Your task to perform on an android device: install app "Chime – Mobile Banking" Image 0: 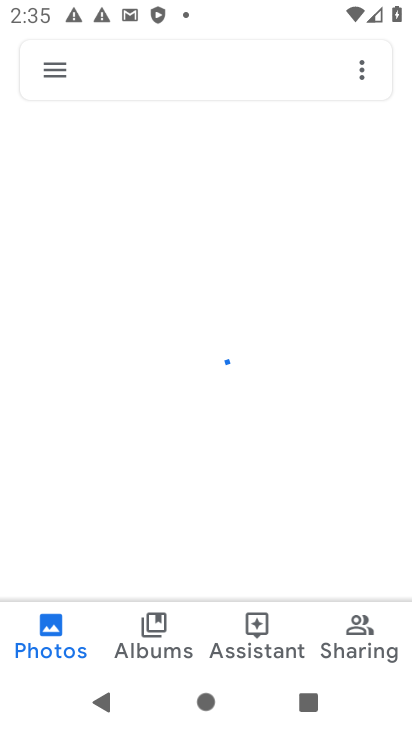
Step 0: press home button
Your task to perform on an android device: install app "Chime – Mobile Banking" Image 1: 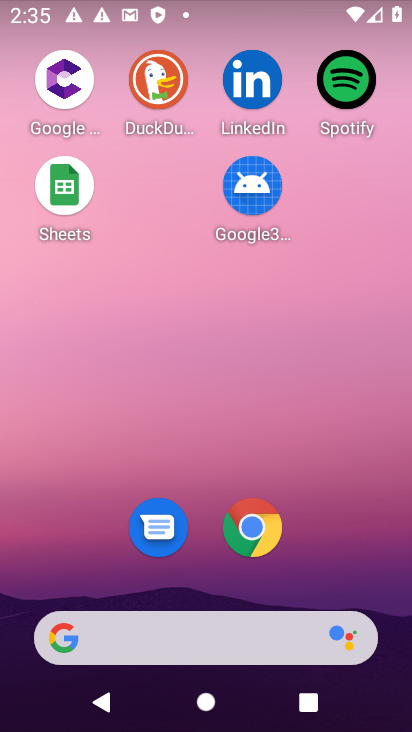
Step 1: drag from (239, 632) to (212, 43)
Your task to perform on an android device: install app "Chime – Mobile Banking" Image 2: 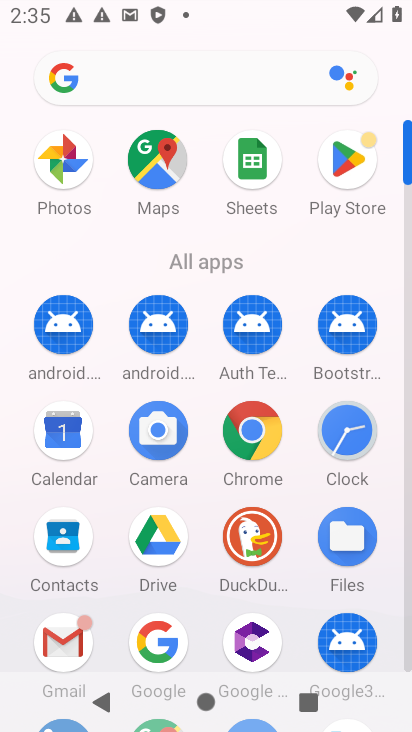
Step 2: click (359, 167)
Your task to perform on an android device: install app "Chime – Mobile Banking" Image 3: 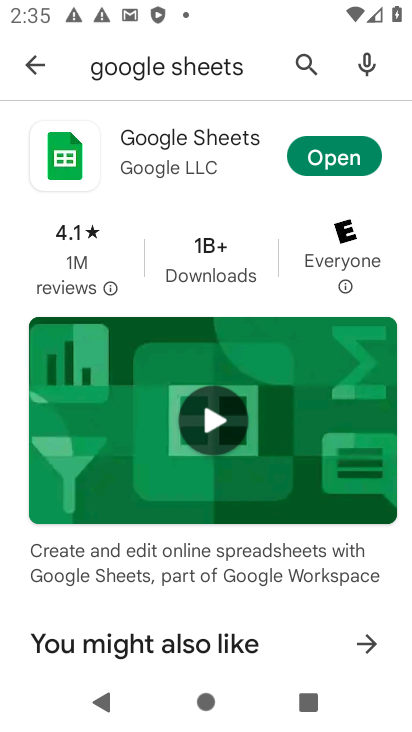
Step 3: click (309, 55)
Your task to perform on an android device: install app "Chime – Mobile Banking" Image 4: 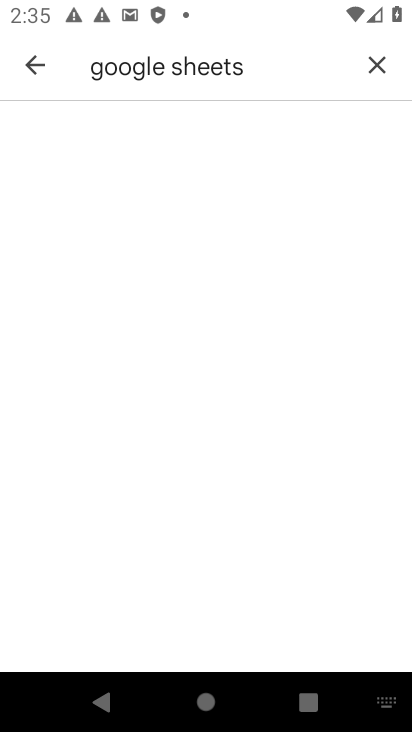
Step 4: click (381, 62)
Your task to perform on an android device: install app "Chime – Mobile Banking" Image 5: 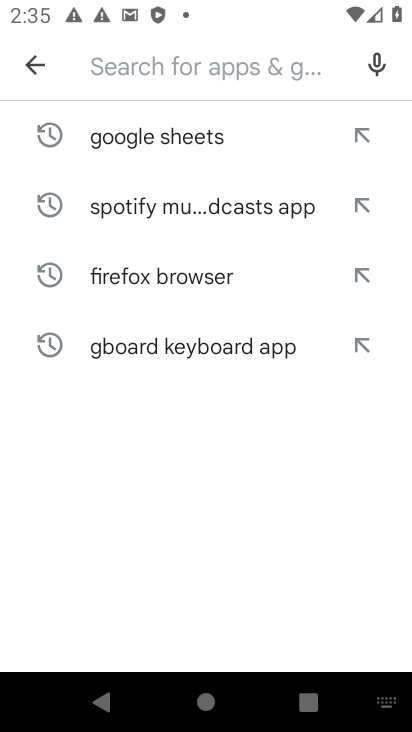
Step 5: type "chime - mobile banking"
Your task to perform on an android device: install app "Chime – Mobile Banking" Image 6: 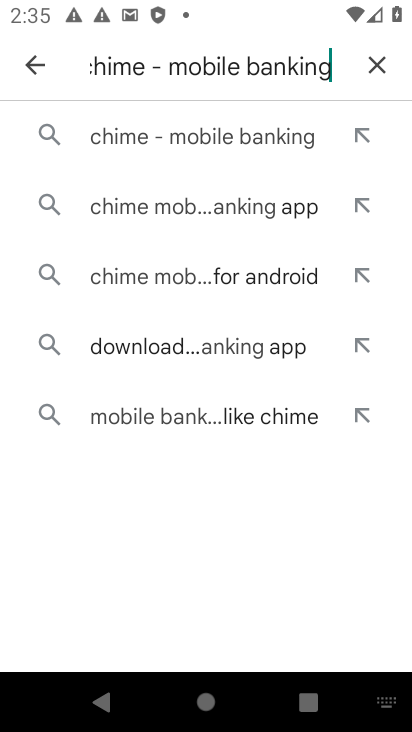
Step 6: click (268, 144)
Your task to perform on an android device: install app "Chime – Mobile Banking" Image 7: 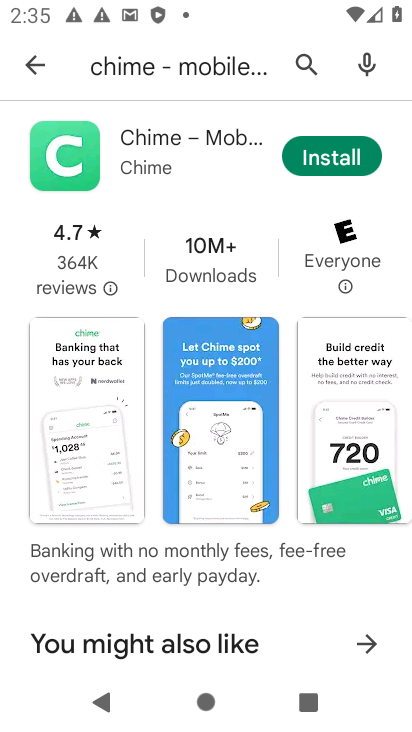
Step 7: click (349, 170)
Your task to perform on an android device: install app "Chime – Mobile Banking" Image 8: 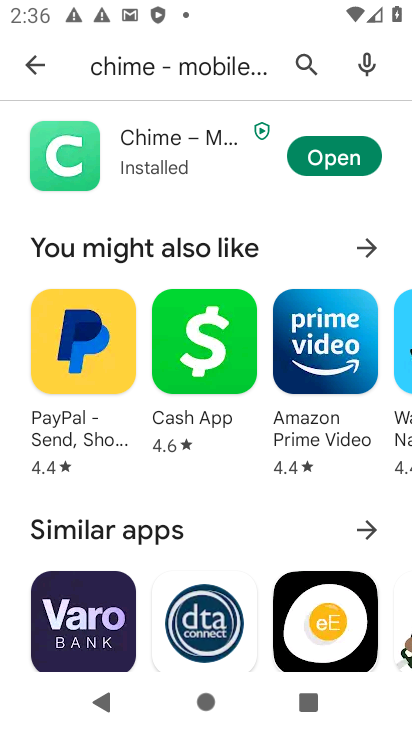
Step 8: task complete